Your task to perform on an android device: Turn off the flashlight Image 0: 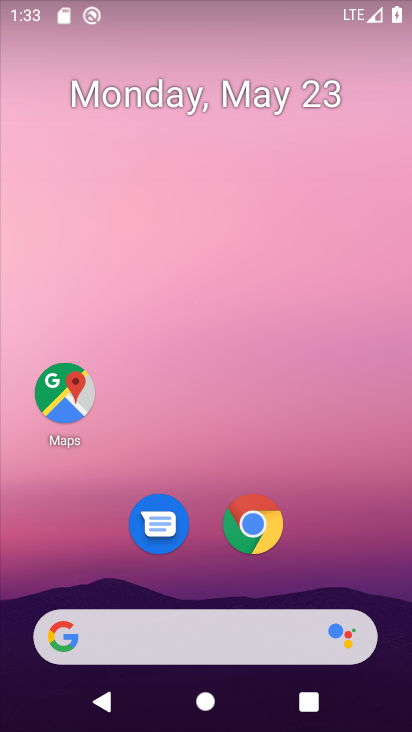
Step 0: drag from (296, 535) to (277, 45)
Your task to perform on an android device: Turn off the flashlight Image 1: 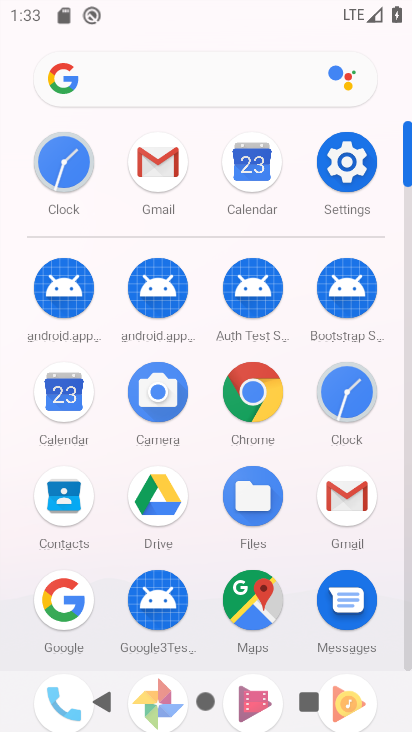
Step 1: click (343, 162)
Your task to perform on an android device: Turn off the flashlight Image 2: 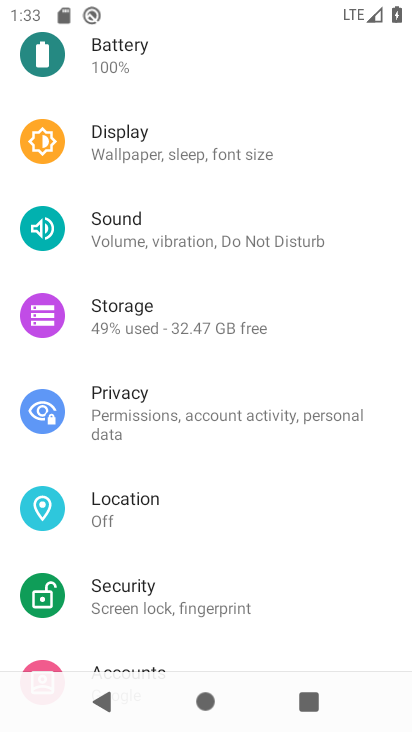
Step 2: drag from (224, 182) to (202, 681)
Your task to perform on an android device: Turn off the flashlight Image 3: 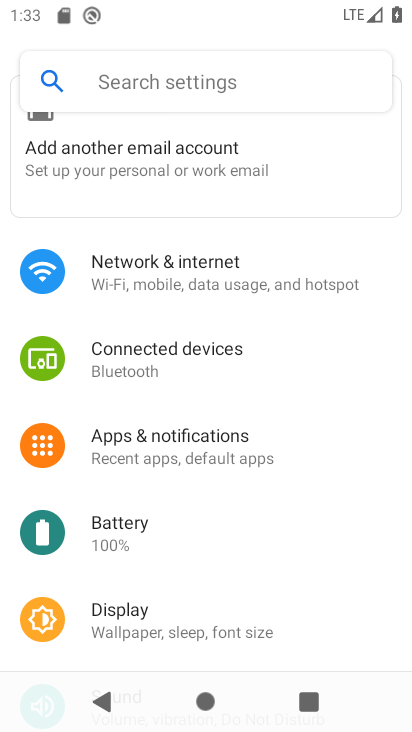
Step 3: drag from (209, 242) to (215, 628)
Your task to perform on an android device: Turn off the flashlight Image 4: 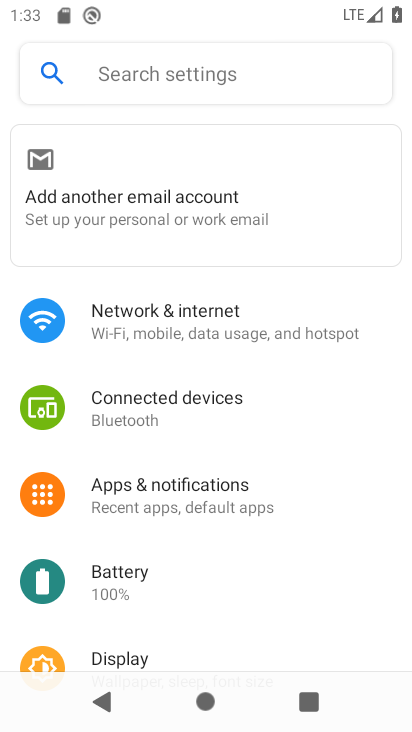
Step 4: click (255, 77)
Your task to perform on an android device: Turn off the flashlight Image 5: 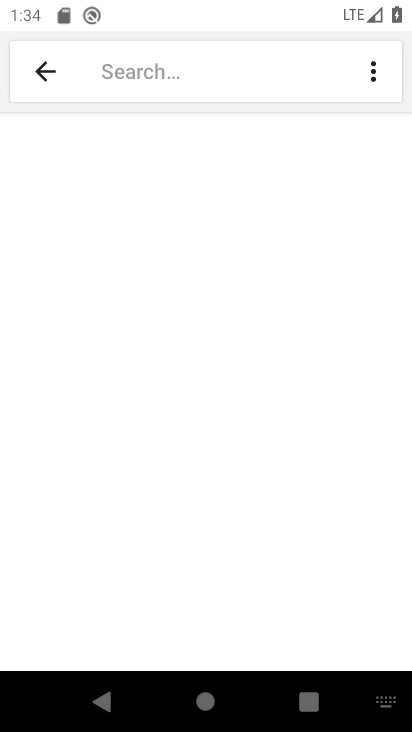
Step 5: type "Flashlight"
Your task to perform on an android device: Turn off the flashlight Image 6: 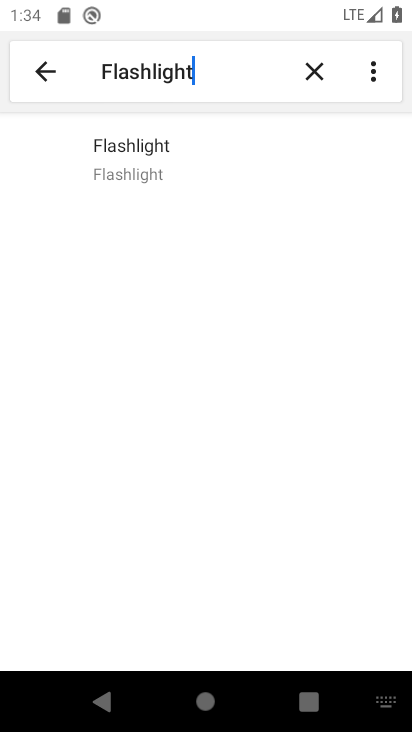
Step 6: click (142, 157)
Your task to perform on an android device: Turn off the flashlight Image 7: 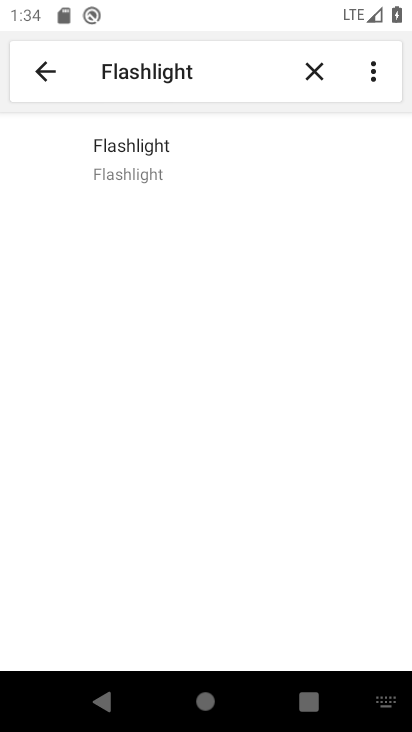
Step 7: click (142, 157)
Your task to perform on an android device: Turn off the flashlight Image 8: 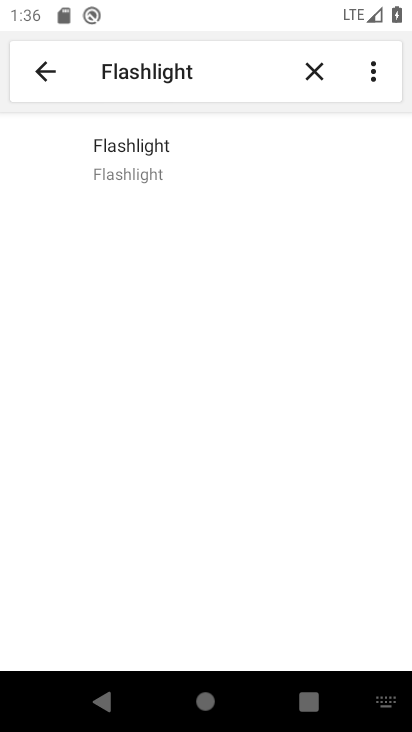
Step 8: task complete